Your task to perform on an android device: open a bookmark in the chrome app Image 0: 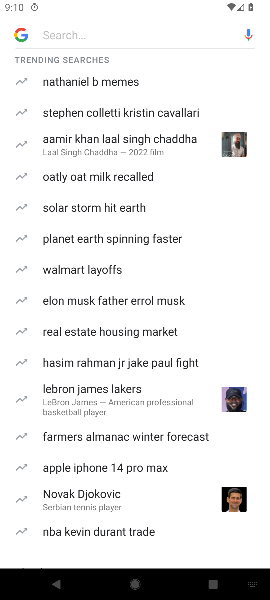
Step 0: press home button
Your task to perform on an android device: open a bookmark in the chrome app Image 1: 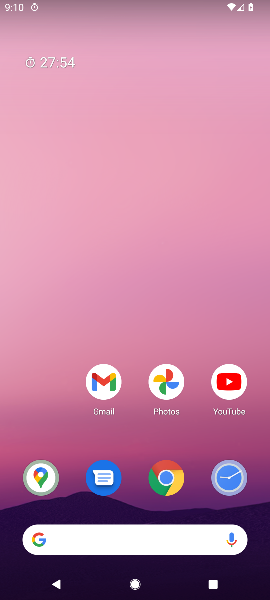
Step 1: click (168, 475)
Your task to perform on an android device: open a bookmark in the chrome app Image 2: 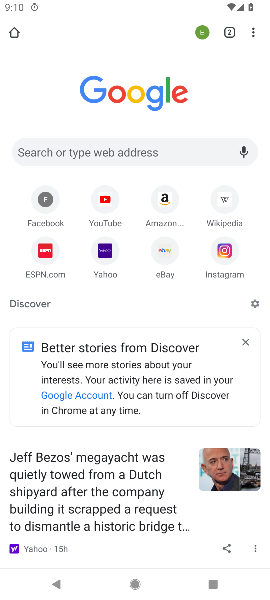
Step 2: task complete